Your task to perform on an android device: open app "Adobe Express: Graphic Design" (install if not already installed) and enter user name: "deliveries@gmail.com" and password: "regimentation" Image 0: 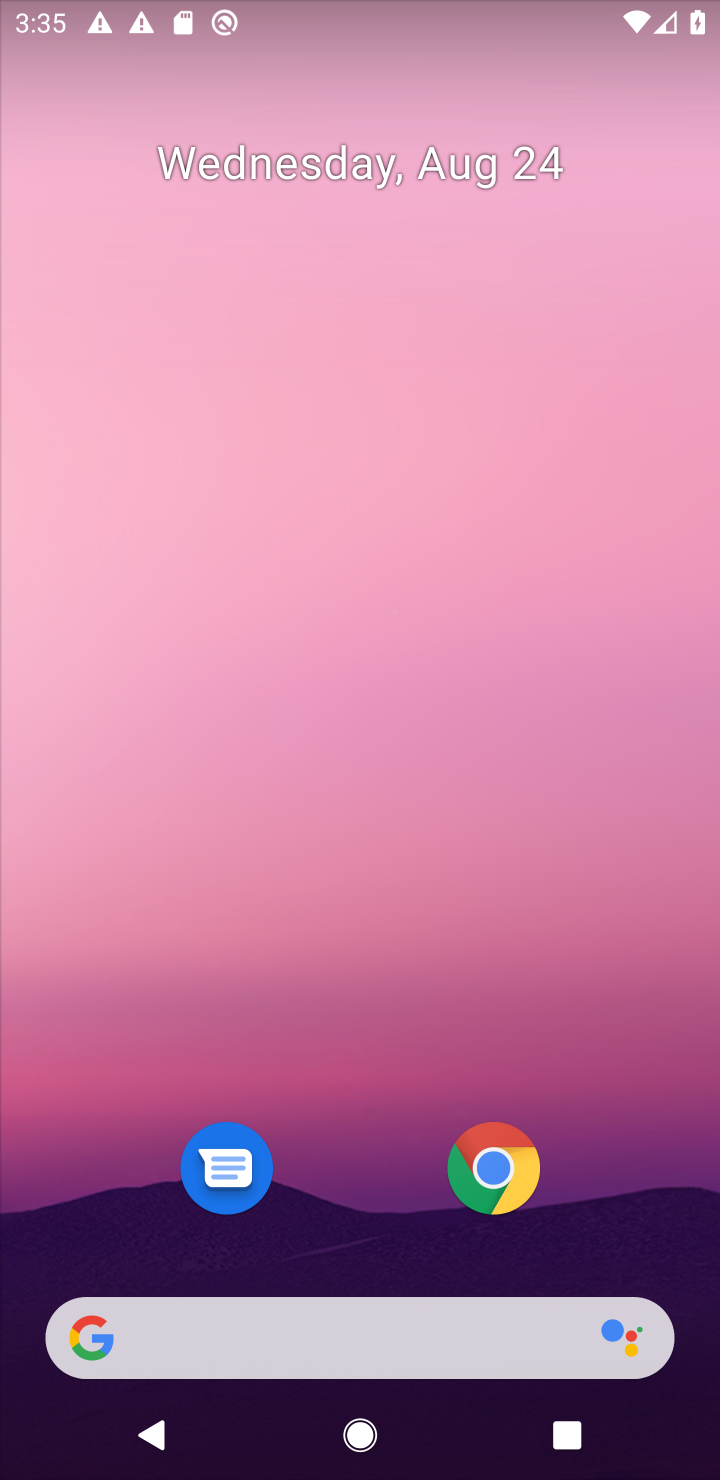
Step 0: drag from (669, 1229) to (558, 309)
Your task to perform on an android device: open app "Adobe Express: Graphic Design" (install if not already installed) and enter user name: "deliveries@gmail.com" and password: "regimentation" Image 1: 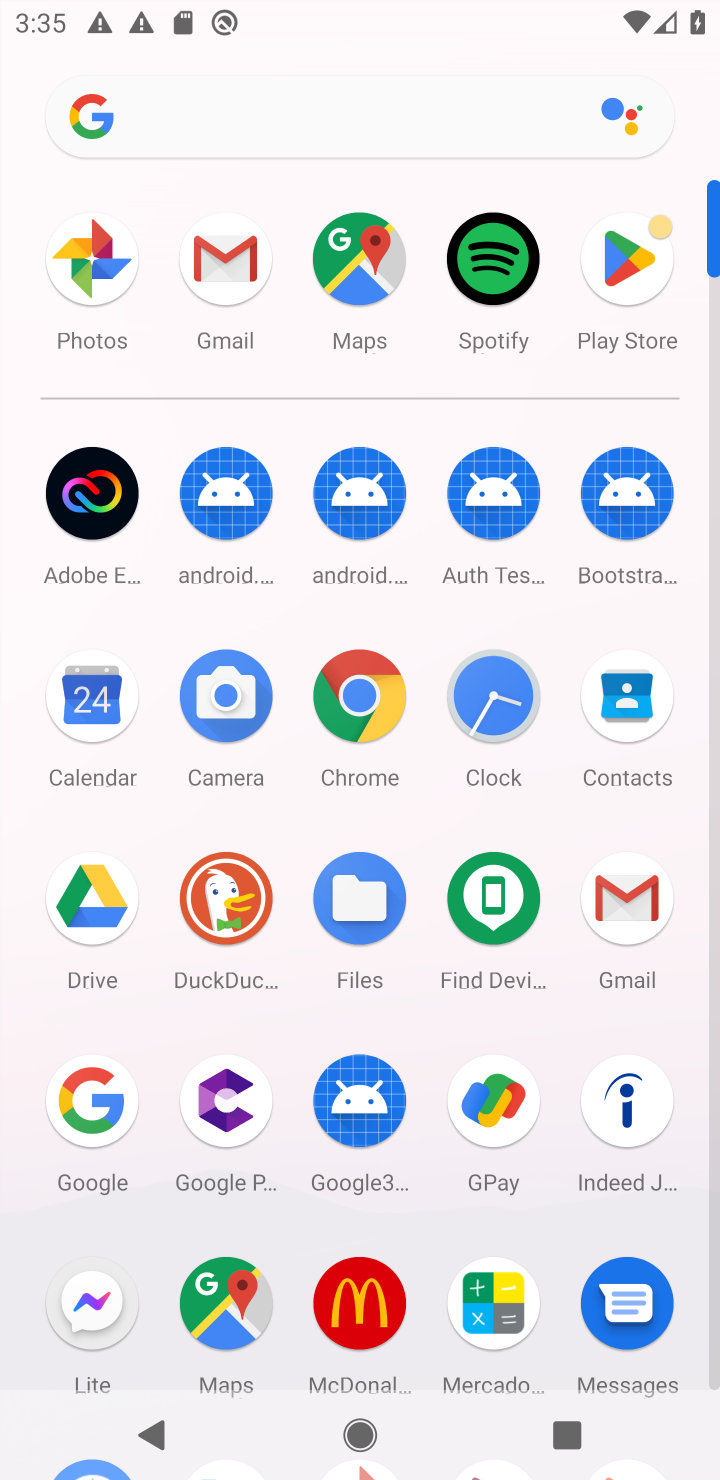
Step 1: click (715, 1358)
Your task to perform on an android device: open app "Adobe Express: Graphic Design" (install if not already installed) and enter user name: "deliveries@gmail.com" and password: "regimentation" Image 2: 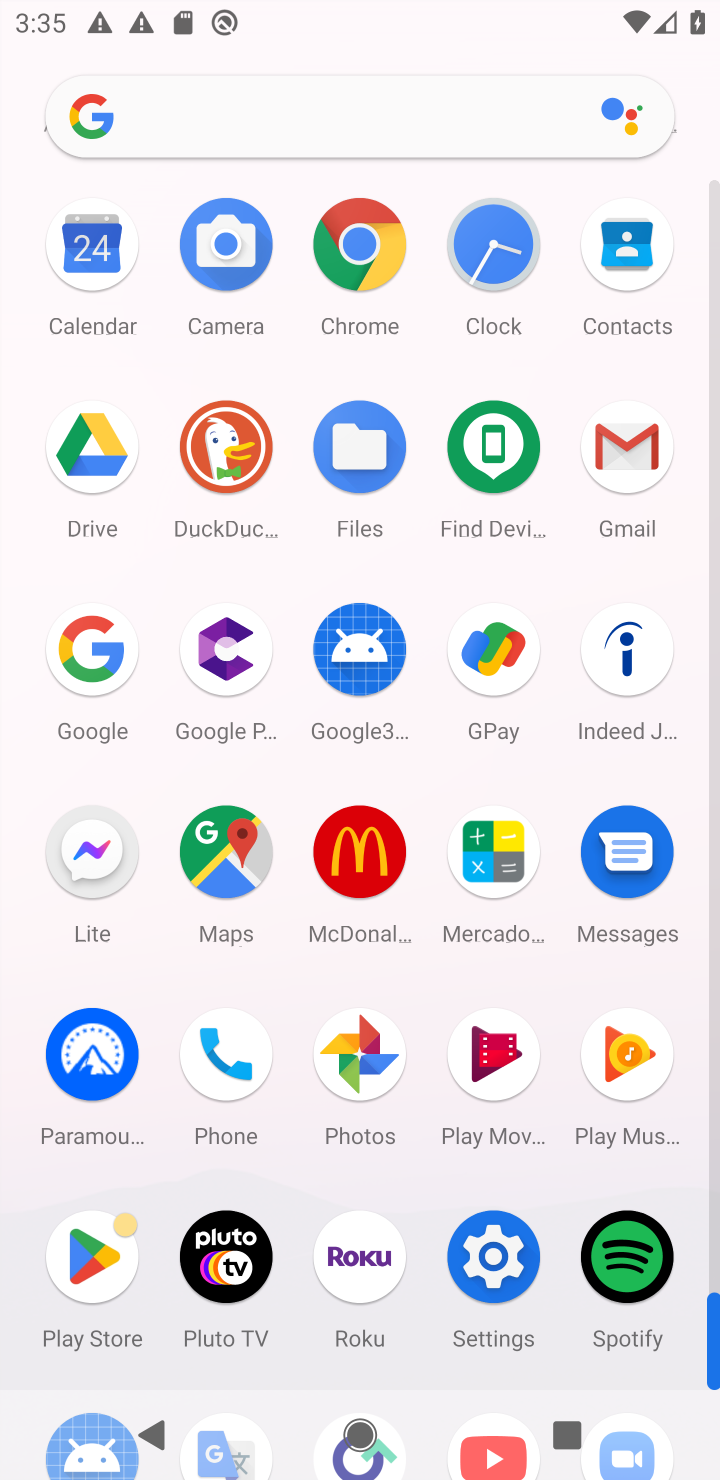
Step 2: click (97, 1257)
Your task to perform on an android device: open app "Adobe Express: Graphic Design" (install if not already installed) and enter user name: "deliveries@gmail.com" and password: "regimentation" Image 3: 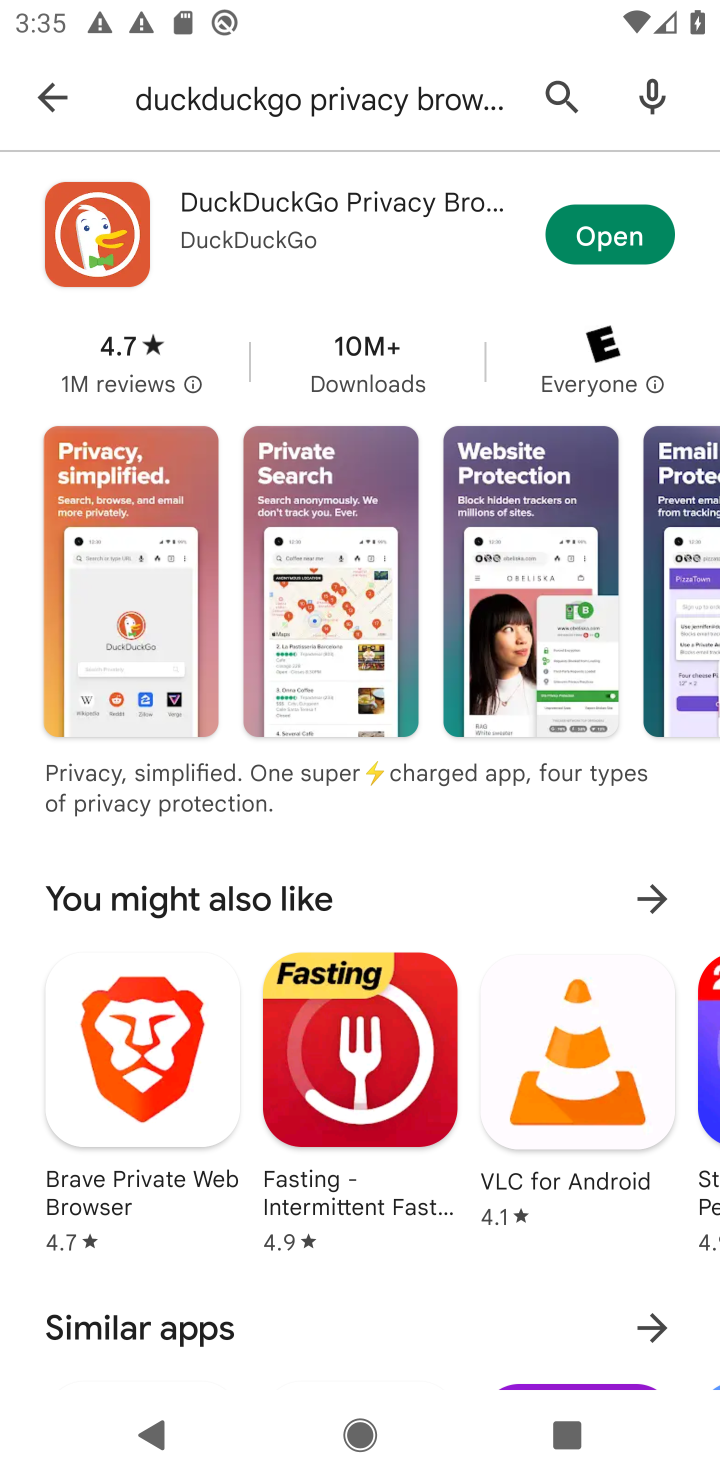
Step 3: click (558, 91)
Your task to perform on an android device: open app "Adobe Express: Graphic Design" (install if not already installed) and enter user name: "deliveries@gmail.com" and password: "regimentation" Image 4: 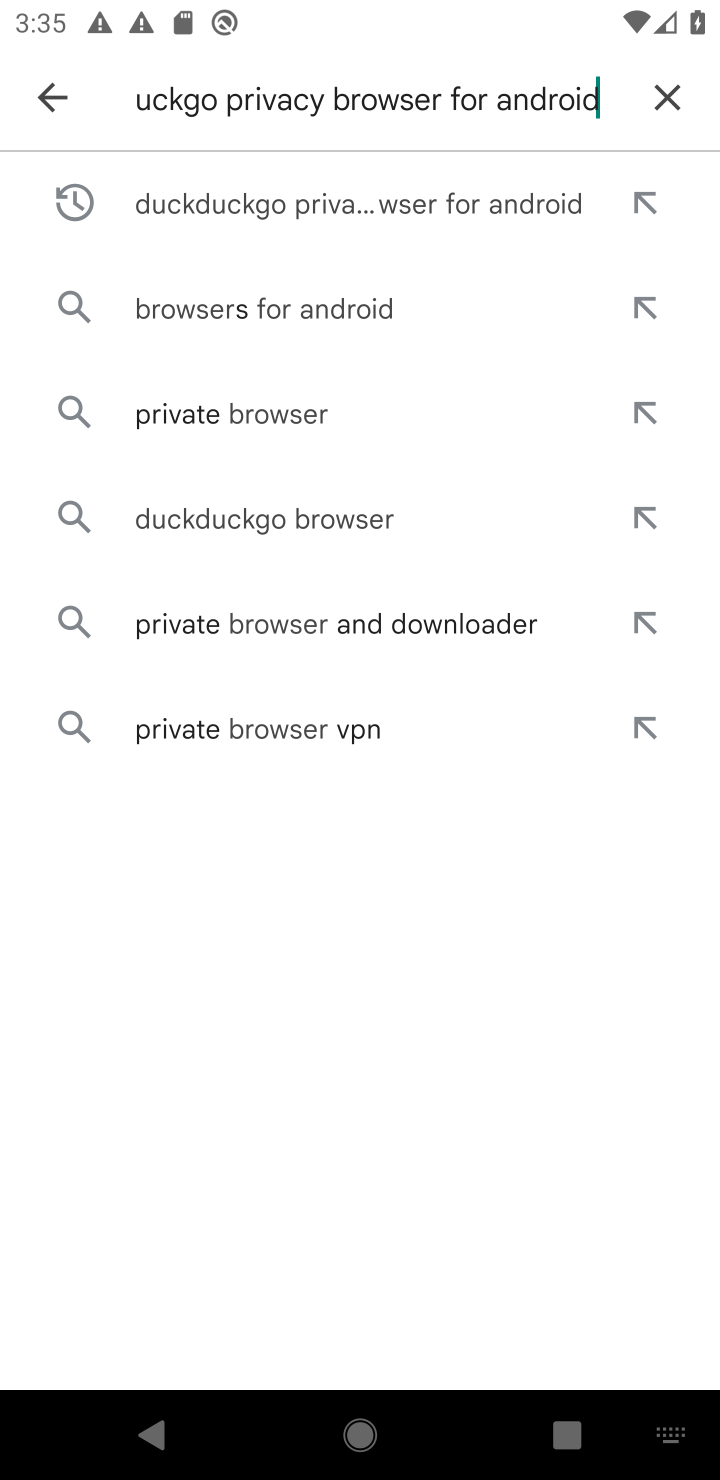
Step 4: click (663, 89)
Your task to perform on an android device: open app "Adobe Express: Graphic Design" (install if not already installed) and enter user name: "deliveries@gmail.com" and password: "regimentation" Image 5: 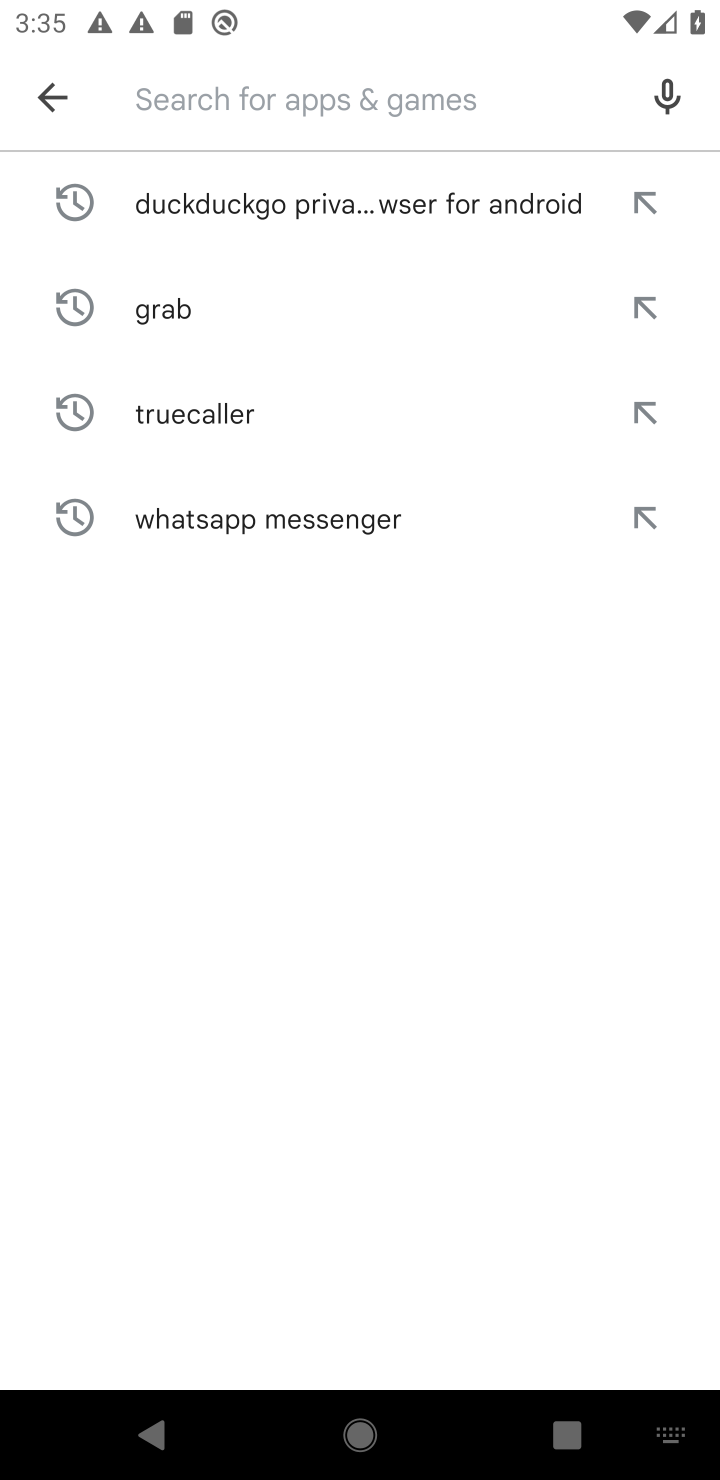
Step 5: type "Adobe Express: Graphic Design"
Your task to perform on an android device: open app "Adobe Express: Graphic Design" (install if not already installed) and enter user name: "deliveries@gmail.com" and password: "regimentation" Image 6: 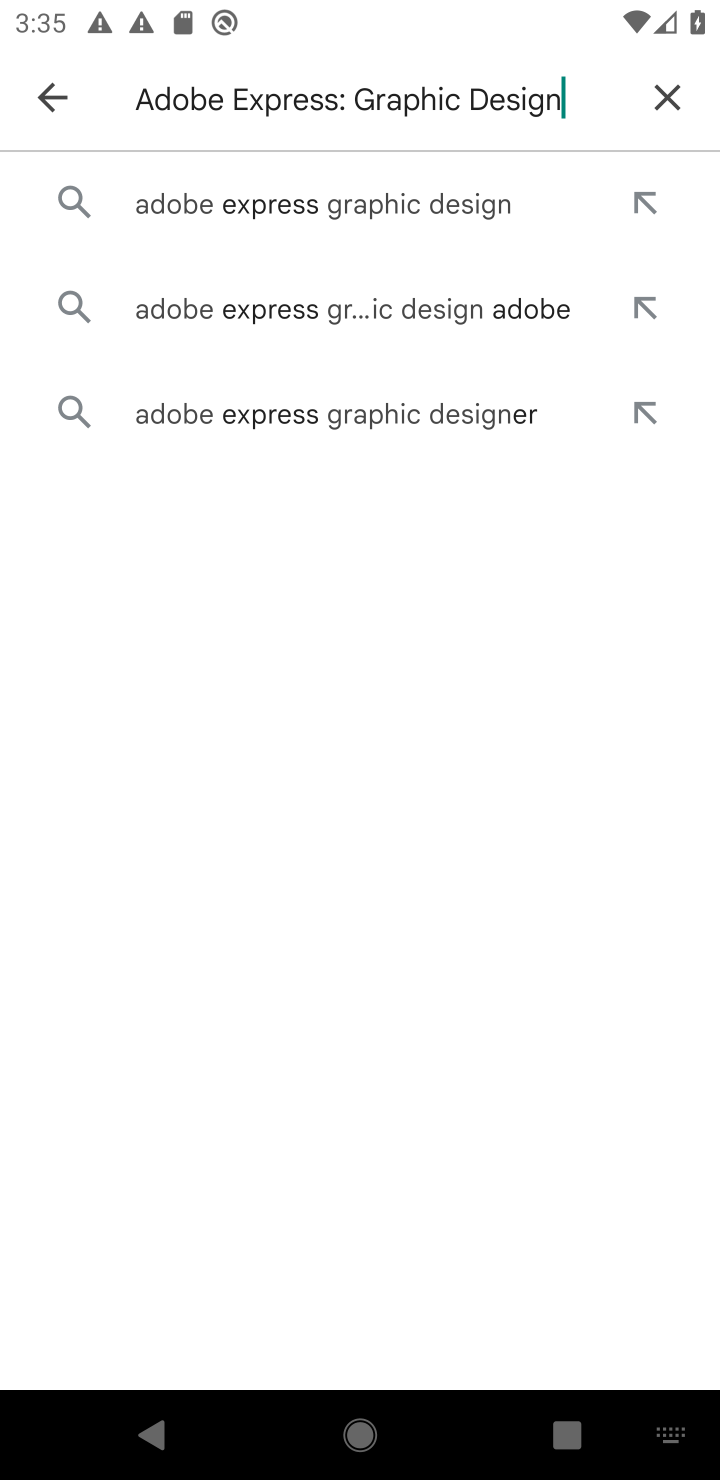
Step 6: click (191, 182)
Your task to perform on an android device: open app "Adobe Express: Graphic Design" (install if not already installed) and enter user name: "deliveries@gmail.com" and password: "regimentation" Image 7: 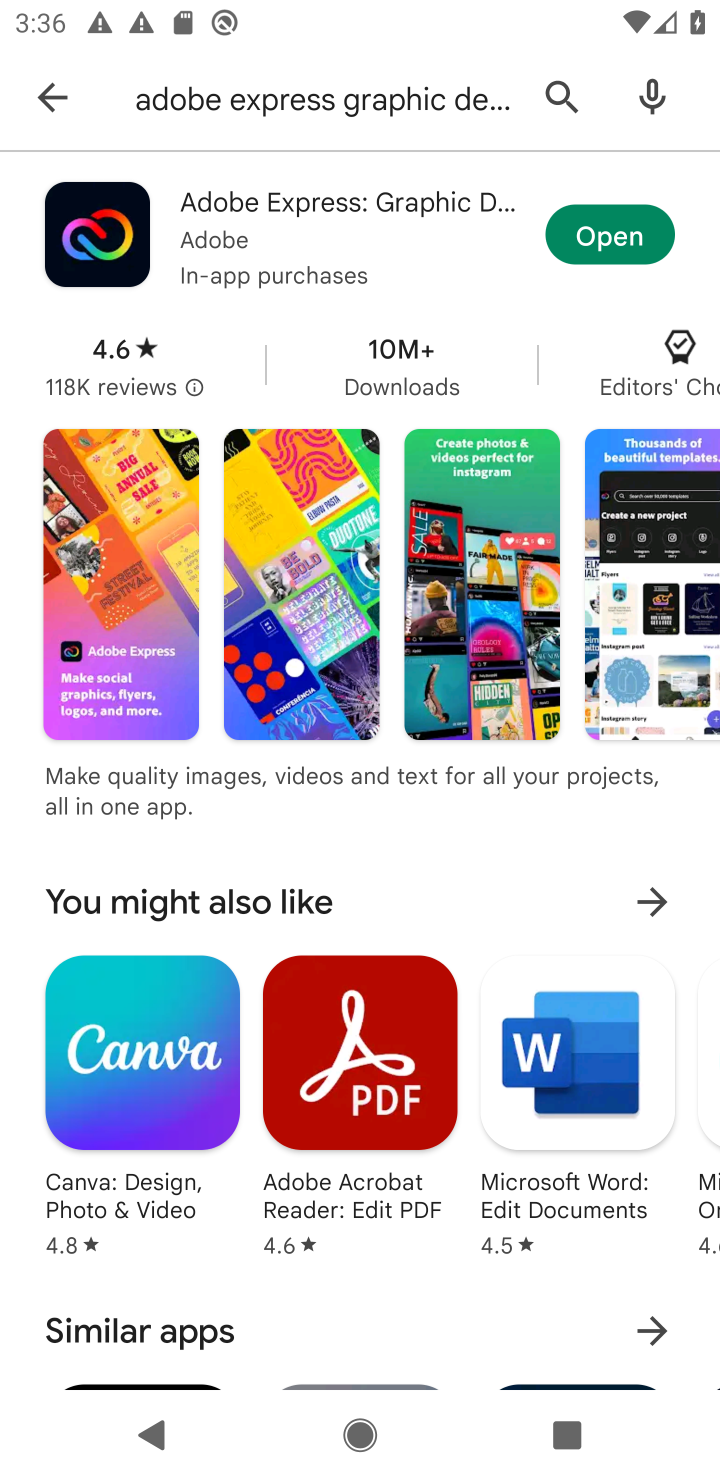
Step 7: click (195, 212)
Your task to perform on an android device: open app "Adobe Express: Graphic Design" (install if not already installed) and enter user name: "deliveries@gmail.com" and password: "regimentation" Image 8: 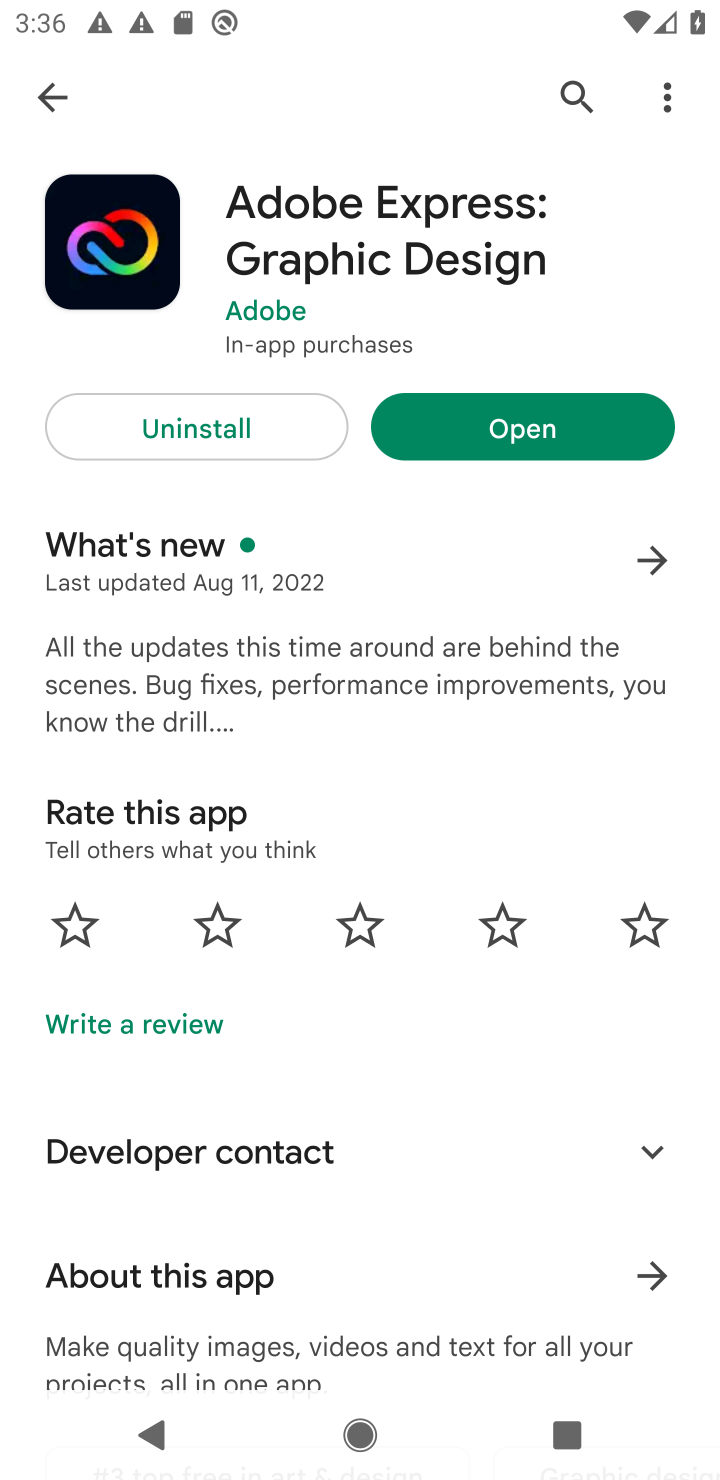
Step 8: click (512, 423)
Your task to perform on an android device: open app "Adobe Express: Graphic Design" (install if not already installed) and enter user name: "deliveries@gmail.com" and password: "regimentation" Image 9: 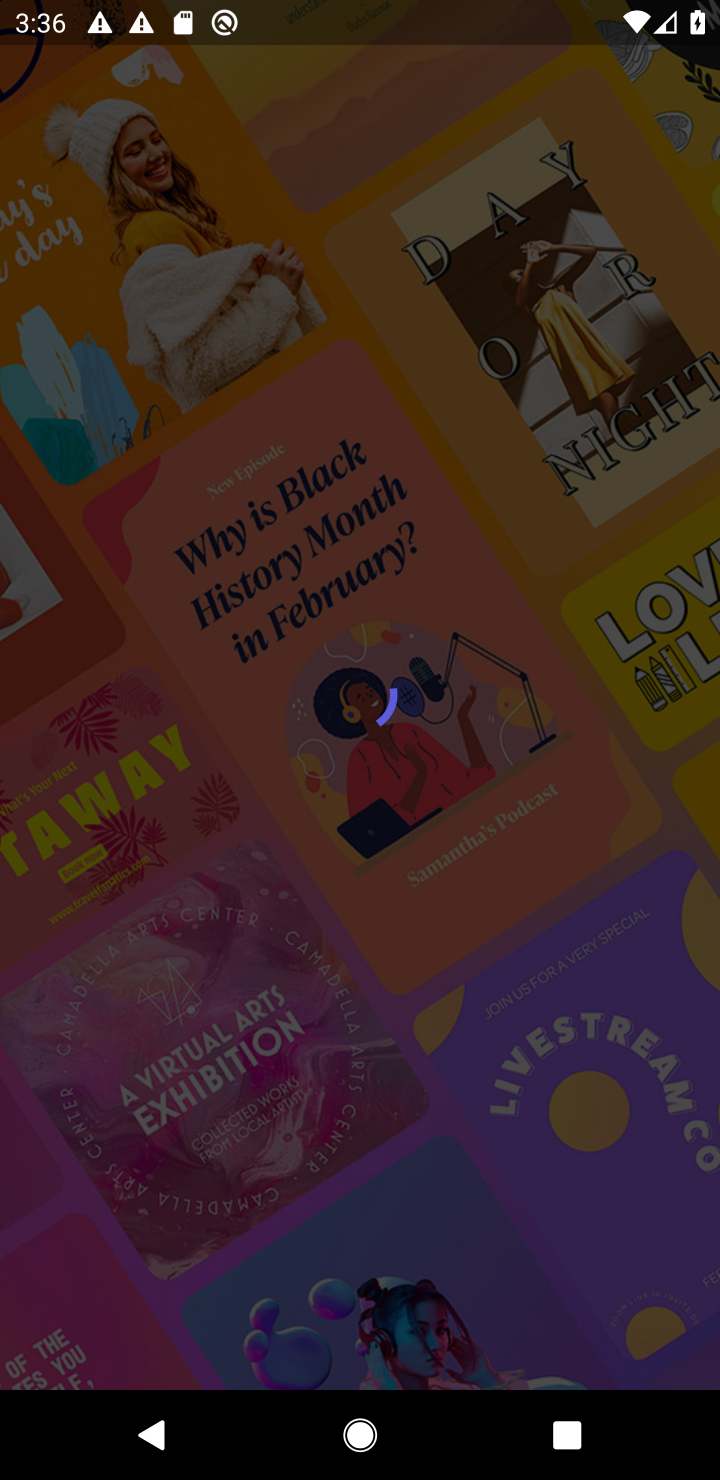
Step 9: task complete